Your task to perform on an android device: check storage Image 0: 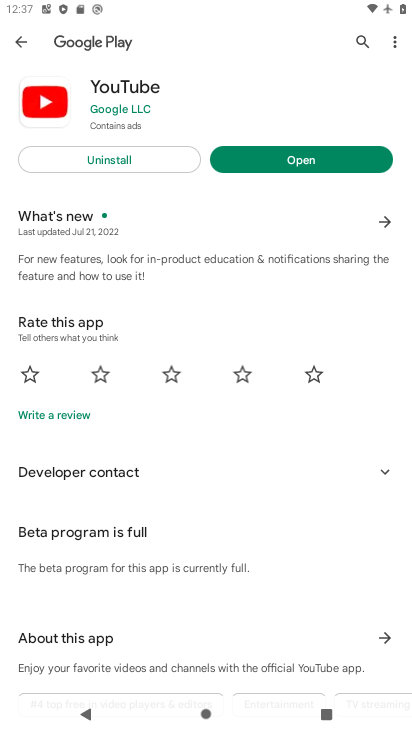
Step 0: press home button
Your task to perform on an android device: check storage Image 1: 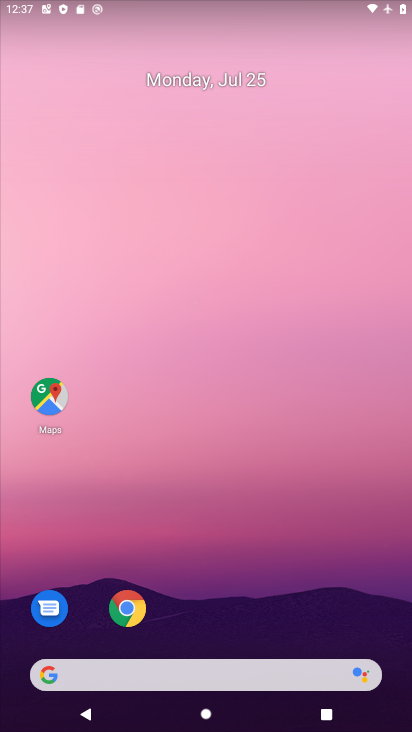
Step 1: drag from (225, 664) to (347, 194)
Your task to perform on an android device: check storage Image 2: 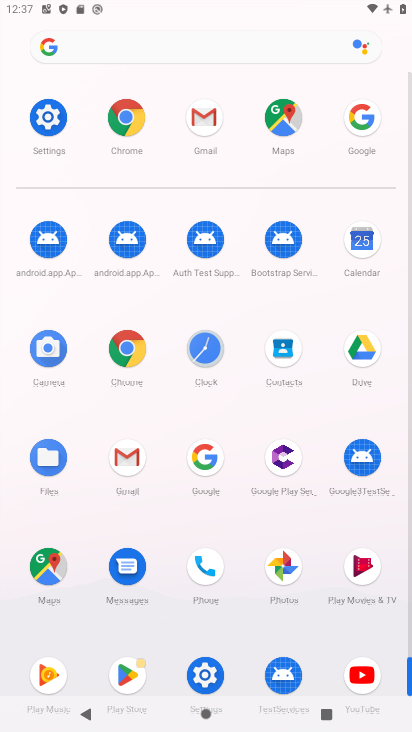
Step 2: click (47, 129)
Your task to perform on an android device: check storage Image 3: 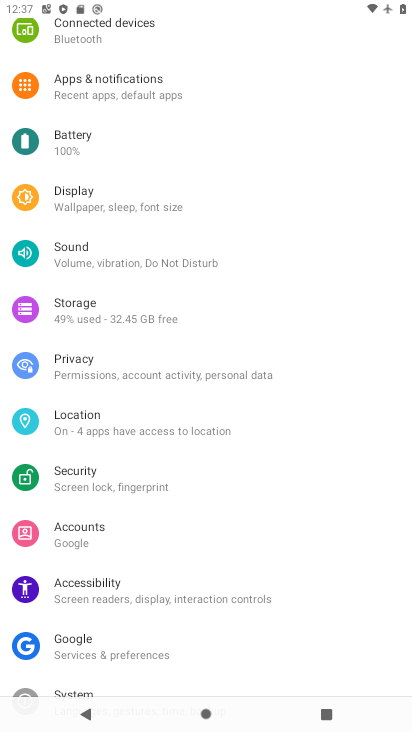
Step 3: click (80, 317)
Your task to perform on an android device: check storage Image 4: 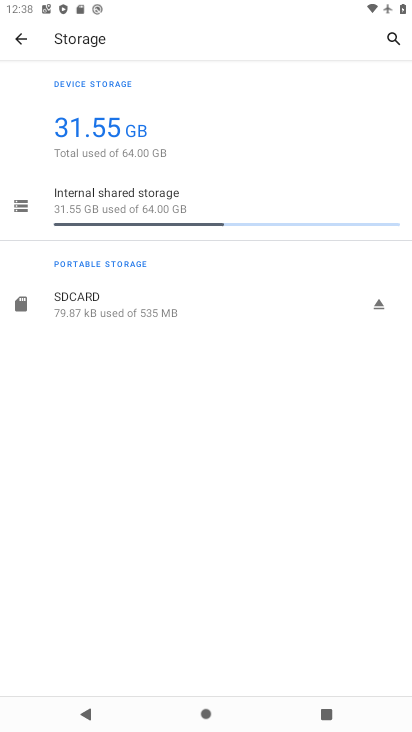
Step 4: click (127, 204)
Your task to perform on an android device: check storage Image 5: 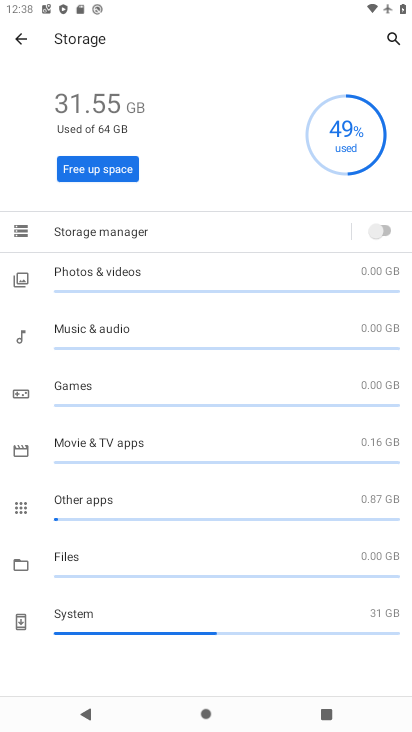
Step 5: task complete